Your task to perform on an android device: add a label to a message in the gmail app Image 0: 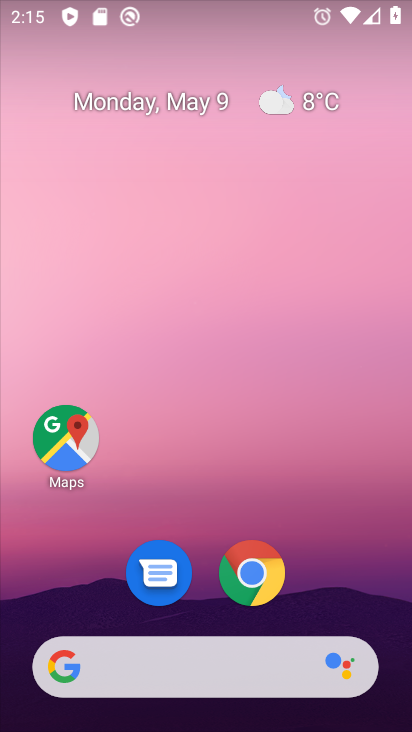
Step 0: drag from (157, 665) to (278, 247)
Your task to perform on an android device: add a label to a message in the gmail app Image 1: 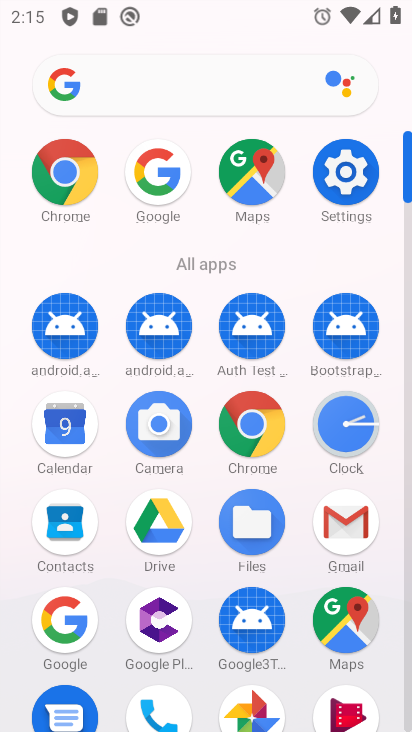
Step 1: click (338, 518)
Your task to perform on an android device: add a label to a message in the gmail app Image 2: 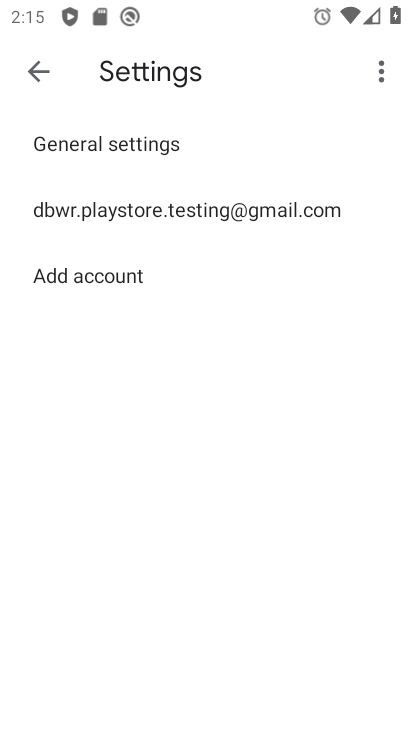
Step 2: click (32, 68)
Your task to perform on an android device: add a label to a message in the gmail app Image 3: 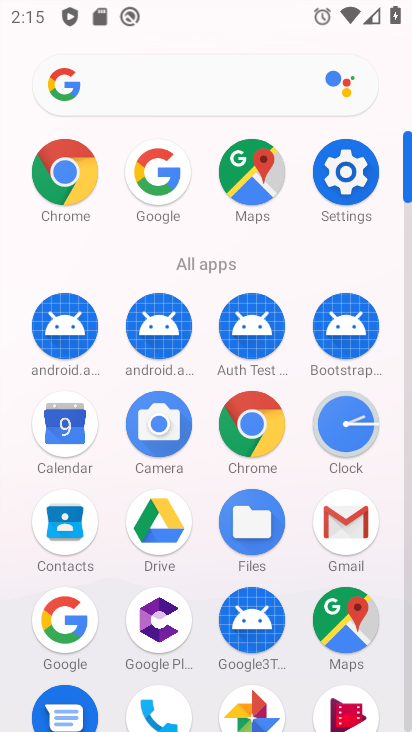
Step 3: click (344, 525)
Your task to perform on an android device: add a label to a message in the gmail app Image 4: 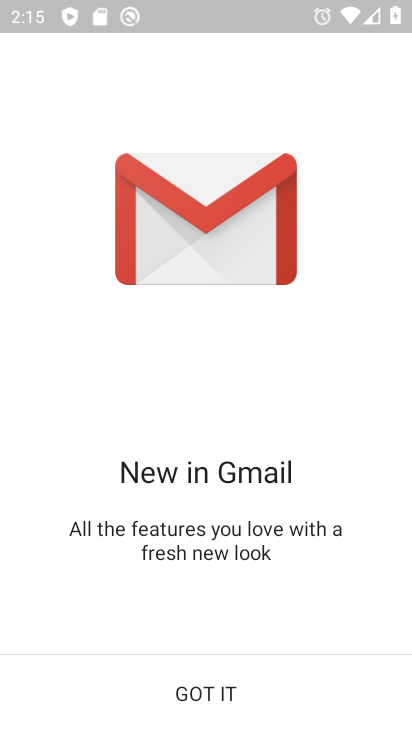
Step 4: click (191, 672)
Your task to perform on an android device: add a label to a message in the gmail app Image 5: 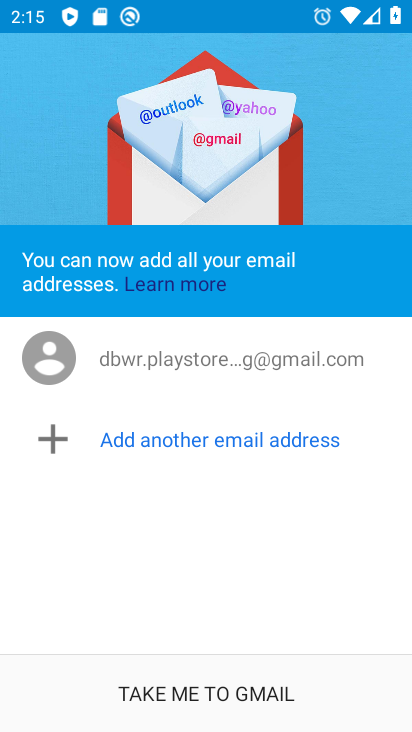
Step 5: click (191, 693)
Your task to perform on an android device: add a label to a message in the gmail app Image 6: 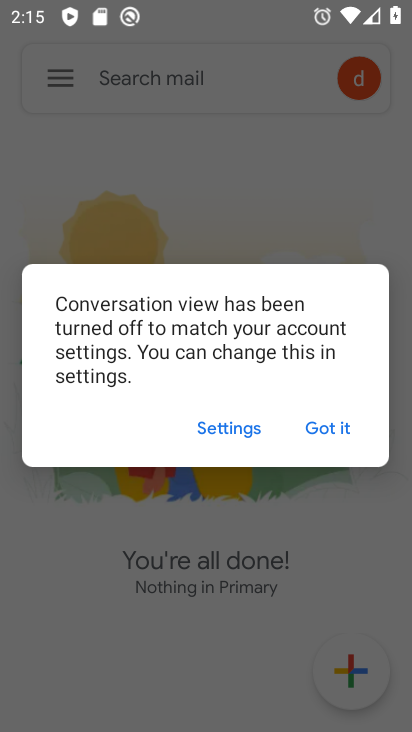
Step 6: click (324, 427)
Your task to perform on an android device: add a label to a message in the gmail app Image 7: 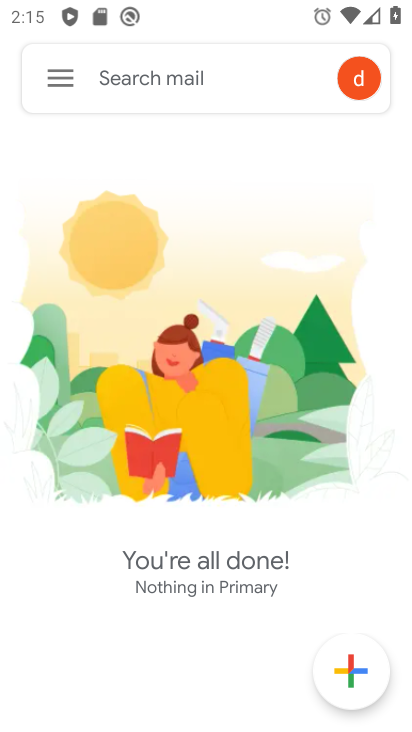
Step 7: task complete